Your task to perform on an android device: Search for vegetarian restaurants on Maps Image 0: 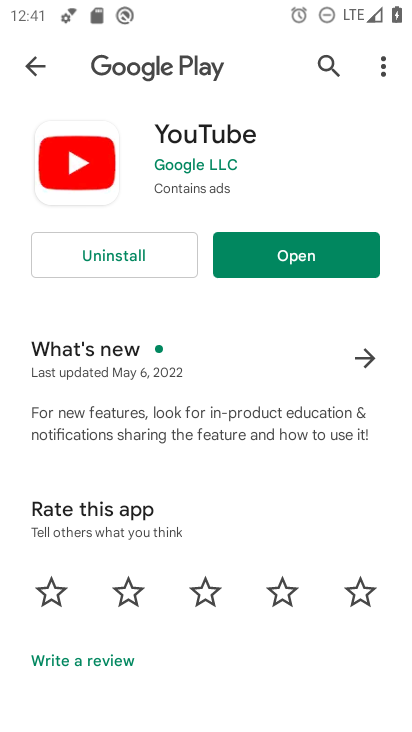
Step 0: press home button
Your task to perform on an android device: Search for vegetarian restaurants on Maps Image 1: 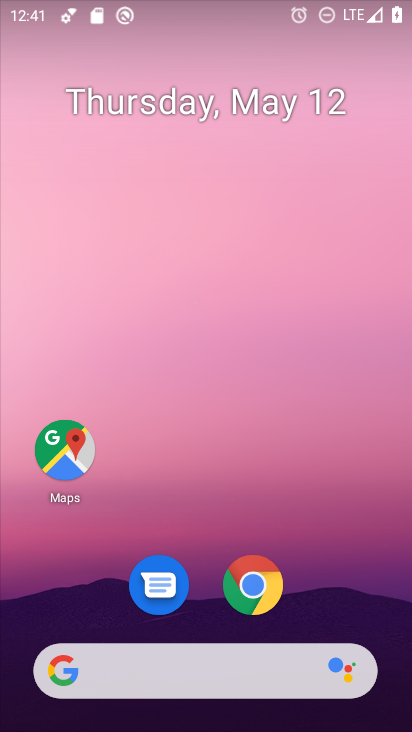
Step 1: click (50, 438)
Your task to perform on an android device: Search for vegetarian restaurants on Maps Image 2: 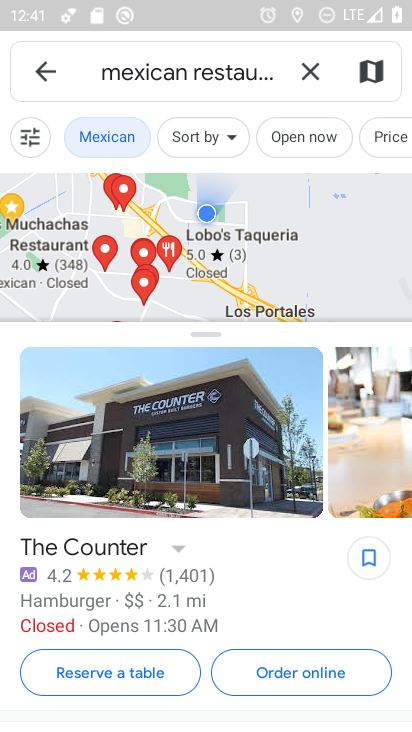
Step 2: click (306, 60)
Your task to perform on an android device: Search for vegetarian restaurants on Maps Image 3: 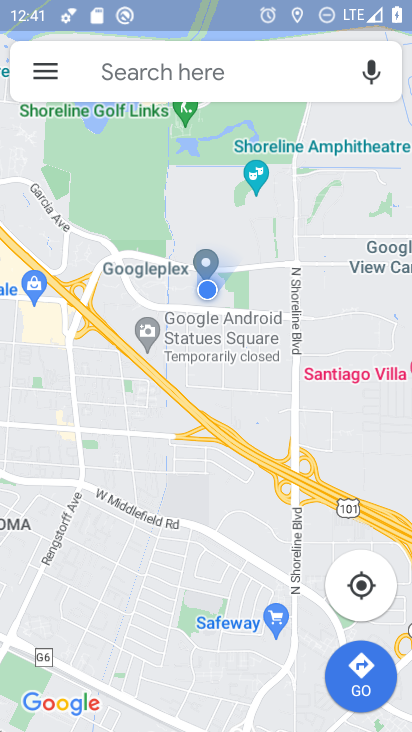
Step 3: click (216, 78)
Your task to perform on an android device: Search for vegetarian restaurants on Maps Image 4: 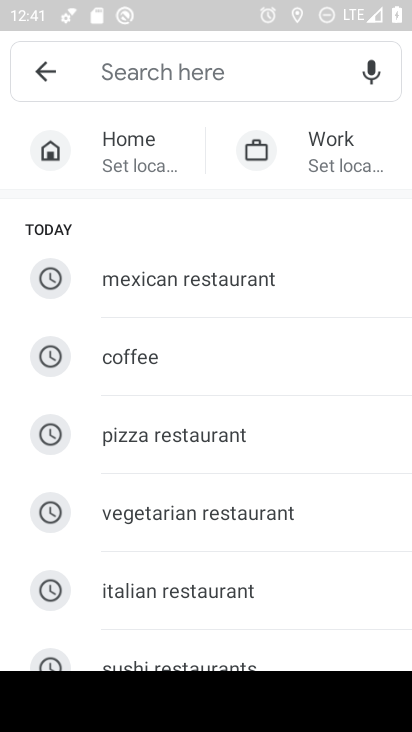
Step 4: click (234, 500)
Your task to perform on an android device: Search for vegetarian restaurants on Maps Image 5: 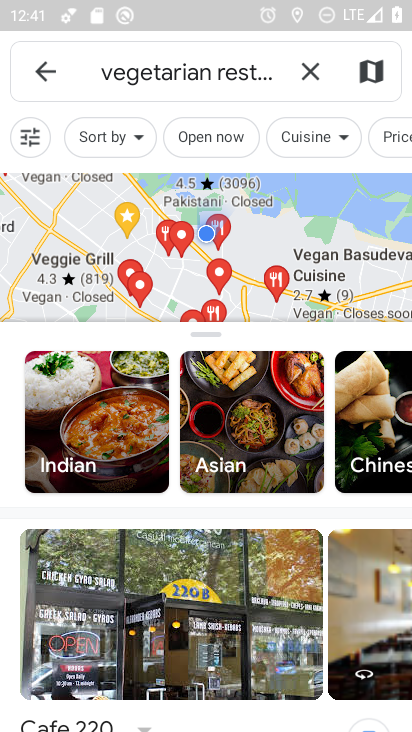
Step 5: task complete